Your task to perform on an android device: star an email in the gmail app Image 0: 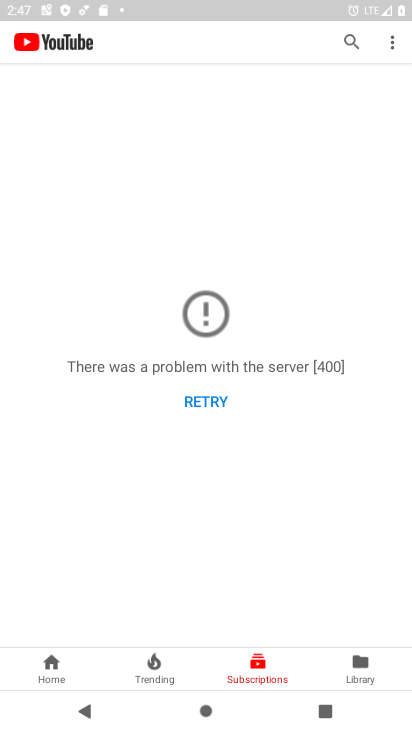
Step 0: press home button
Your task to perform on an android device: star an email in the gmail app Image 1: 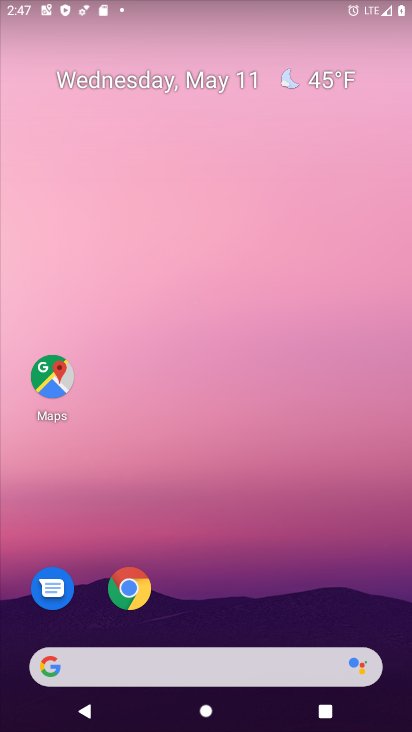
Step 1: drag from (209, 588) to (227, 309)
Your task to perform on an android device: star an email in the gmail app Image 2: 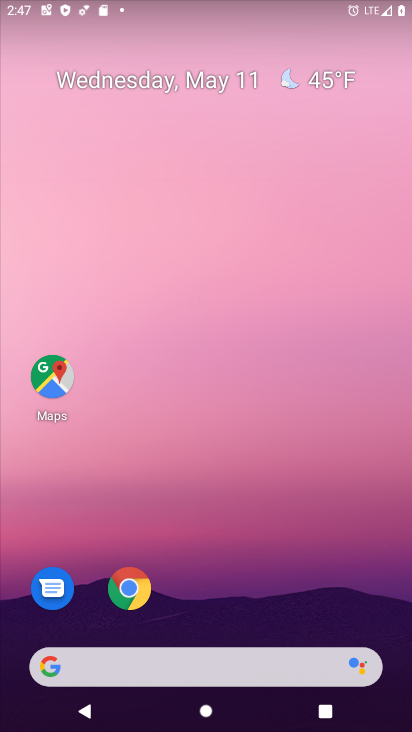
Step 2: drag from (214, 623) to (219, 186)
Your task to perform on an android device: star an email in the gmail app Image 3: 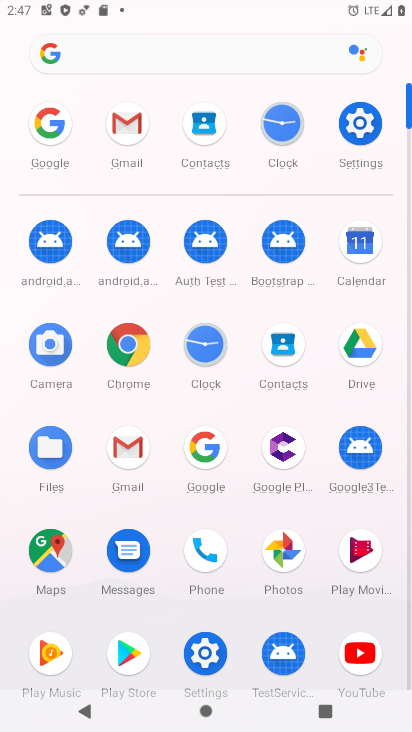
Step 3: click (131, 134)
Your task to perform on an android device: star an email in the gmail app Image 4: 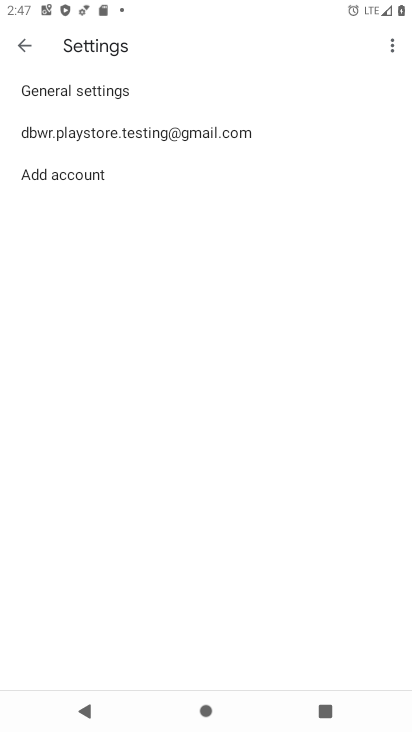
Step 4: drag from (74, 136) to (218, 430)
Your task to perform on an android device: star an email in the gmail app Image 5: 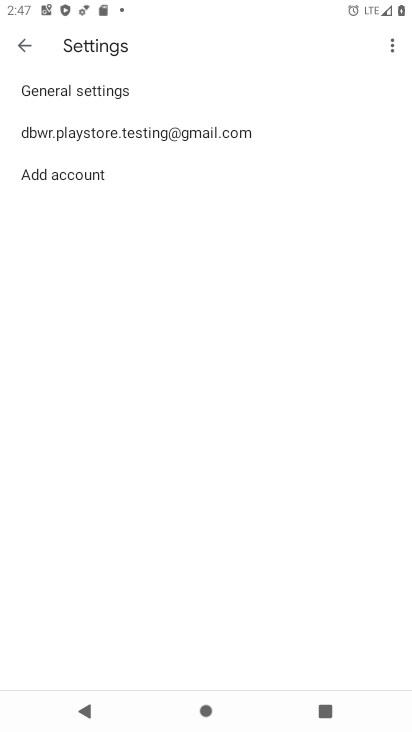
Step 5: click (20, 51)
Your task to perform on an android device: star an email in the gmail app Image 6: 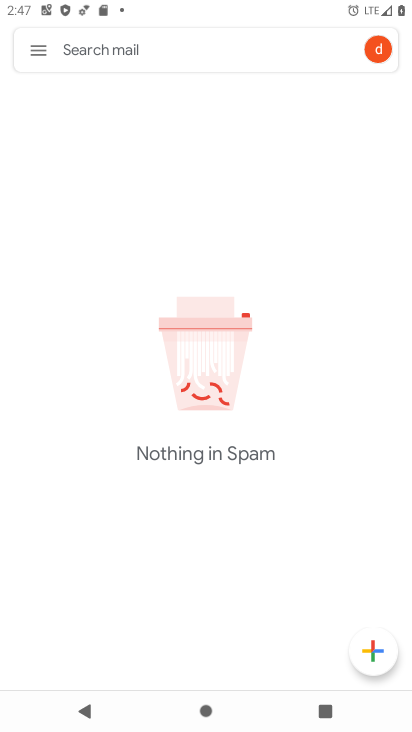
Step 6: click (31, 66)
Your task to perform on an android device: star an email in the gmail app Image 7: 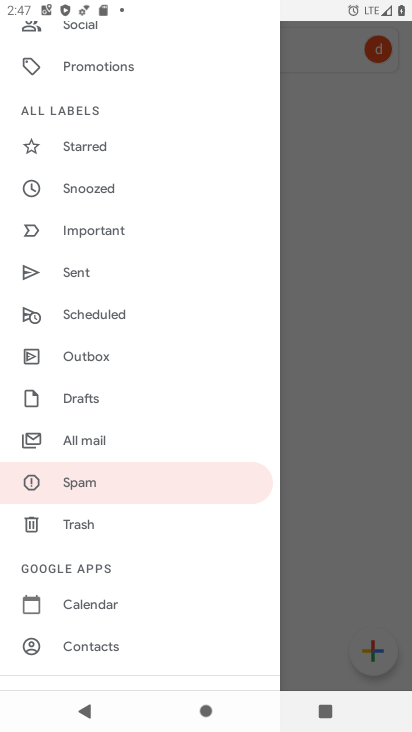
Step 7: click (104, 433)
Your task to perform on an android device: star an email in the gmail app Image 8: 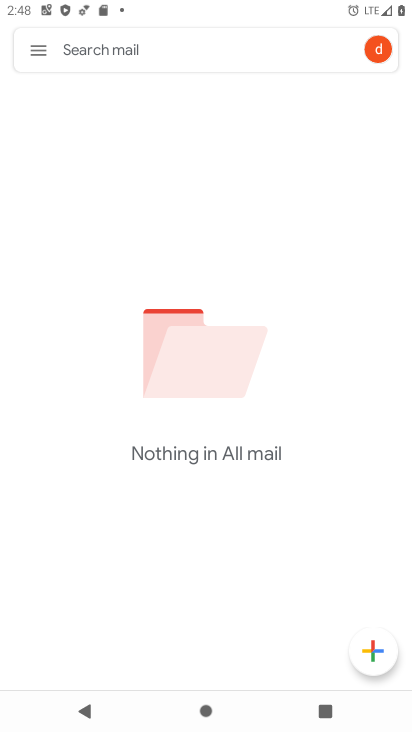
Step 8: task complete